Your task to perform on an android device: Open Google Chrome and open the bookmarks view Image 0: 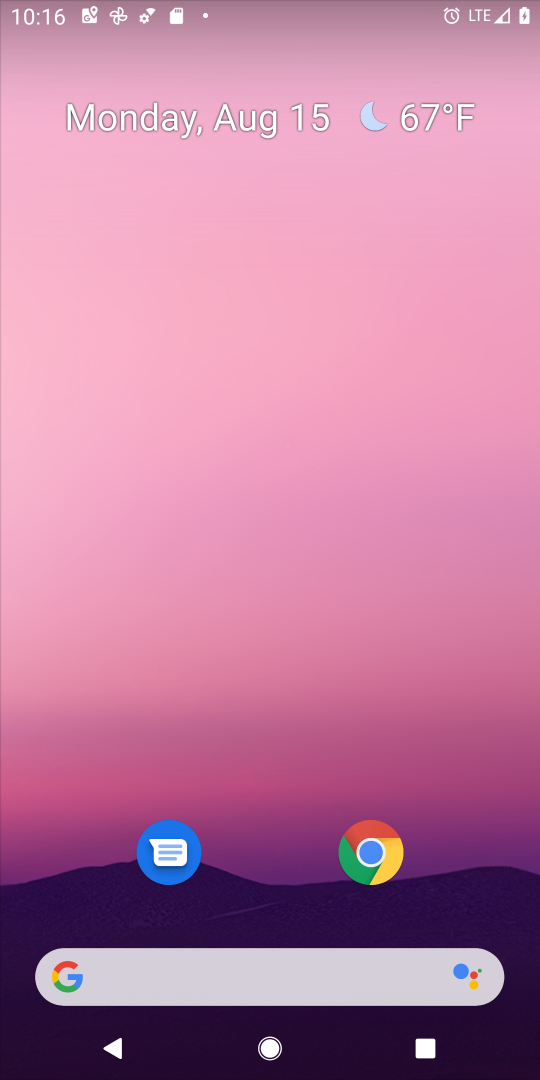
Step 0: click (377, 862)
Your task to perform on an android device: Open Google Chrome and open the bookmarks view Image 1: 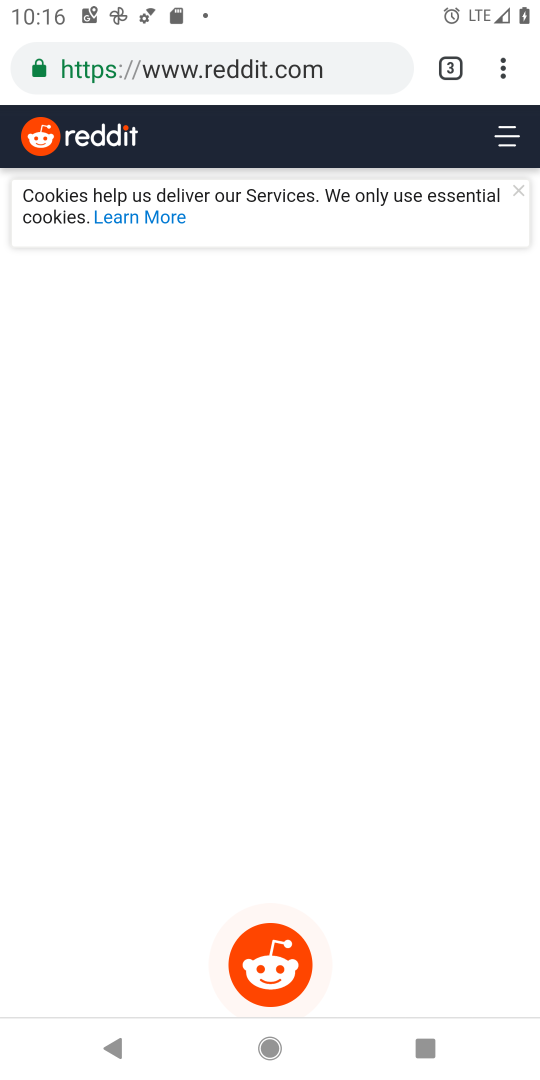
Step 1: click (515, 82)
Your task to perform on an android device: Open Google Chrome and open the bookmarks view Image 2: 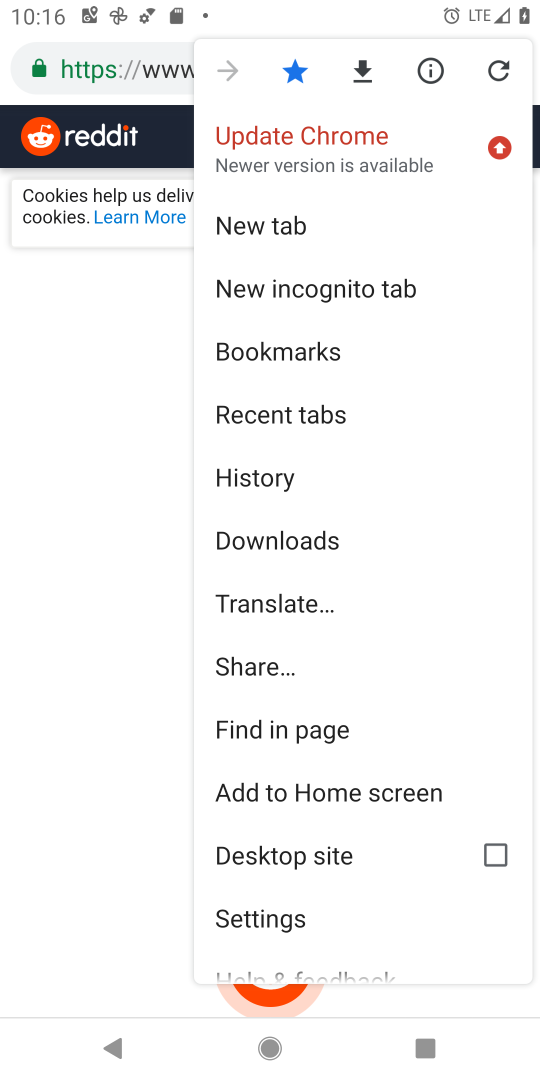
Step 2: click (319, 355)
Your task to perform on an android device: Open Google Chrome and open the bookmarks view Image 3: 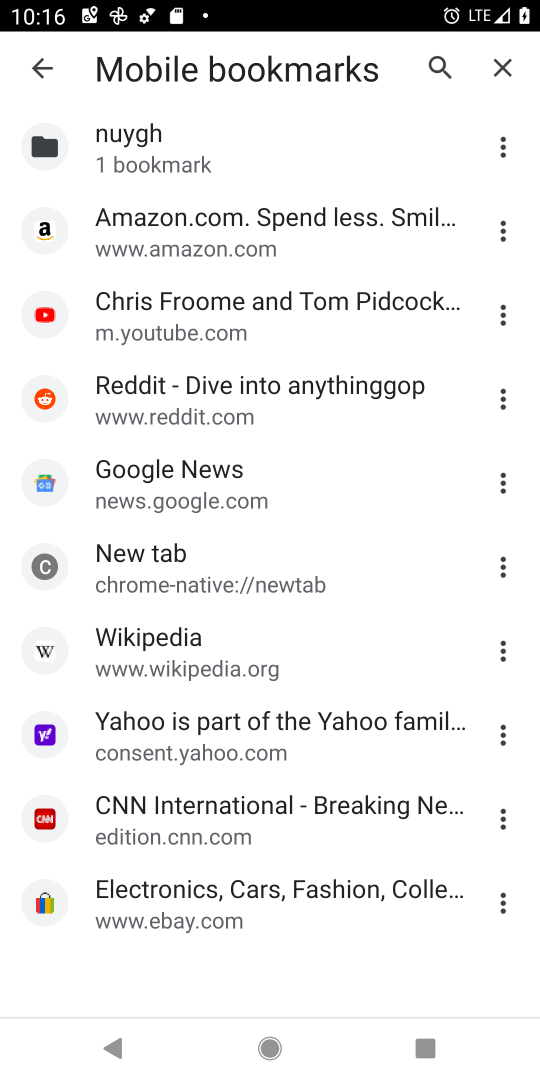
Step 3: task complete